Your task to perform on an android device: Search for razer thresher on costco.com, select the first entry, and add it to the cart. Image 0: 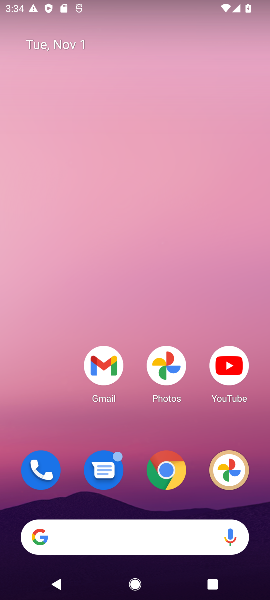
Step 0: click (171, 477)
Your task to perform on an android device: Search for razer thresher on costco.com, select the first entry, and add it to the cart. Image 1: 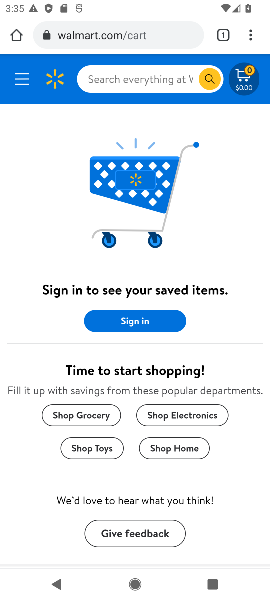
Step 1: click (130, 38)
Your task to perform on an android device: Search for razer thresher on costco.com, select the first entry, and add it to the cart. Image 2: 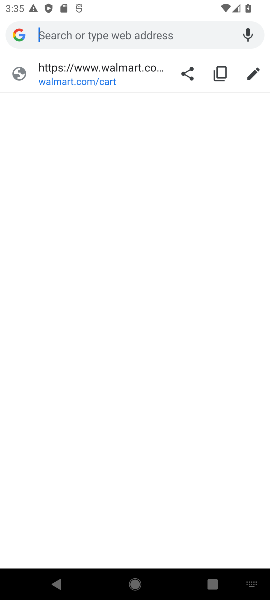
Step 2: type "costco.com"
Your task to perform on an android device: Search for razer thresher on costco.com, select the first entry, and add it to the cart. Image 3: 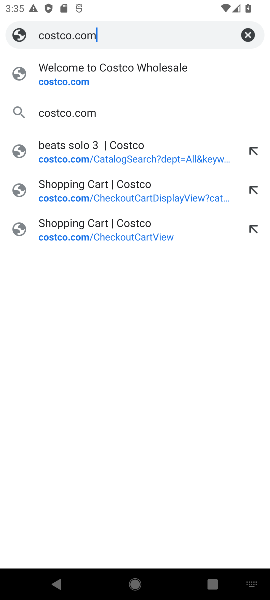
Step 3: press enter
Your task to perform on an android device: Search for razer thresher on costco.com, select the first entry, and add it to the cart. Image 4: 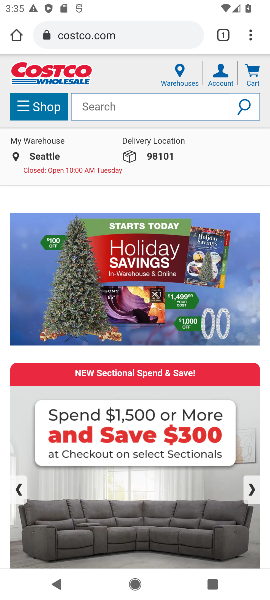
Step 4: click (133, 104)
Your task to perform on an android device: Search for razer thresher on costco.com, select the first entry, and add it to the cart. Image 5: 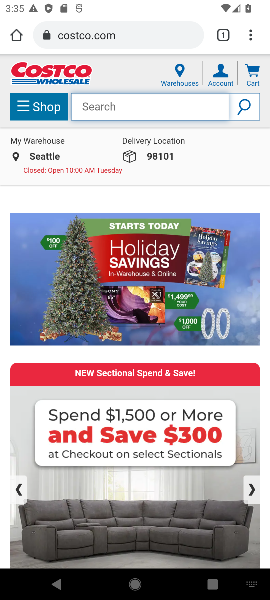
Step 5: type "razer thresher"
Your task to perform on an android device: Search for razer thresher on costco.com, select the first entry, and add it to the cart. Image 6: 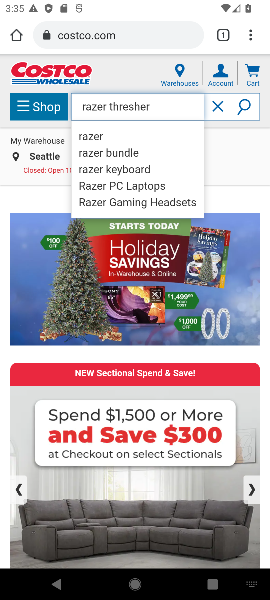
Step 6: press enter
Your task to perform on an android device: Search for razer thresher on costco.com, select the first entry, and add it to the cart. Image 7: 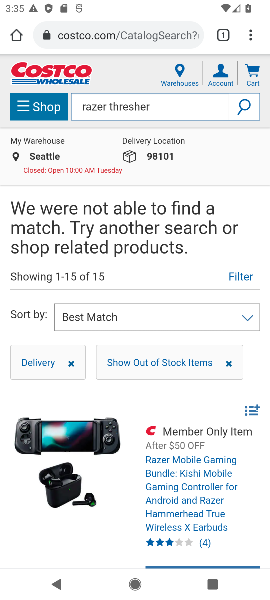
Step 7: task complete